Your task to perform on an android device: snooze an email in the gmail app Image 0: 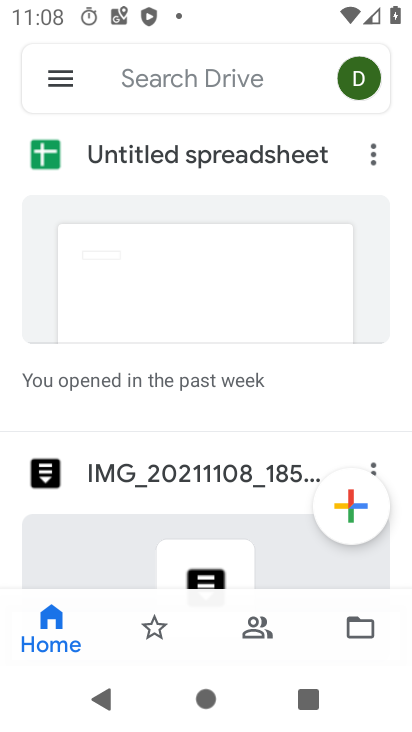
Step 0: press home button
Your task to perform on an android device: snooze an email in the gmail app Image 1: 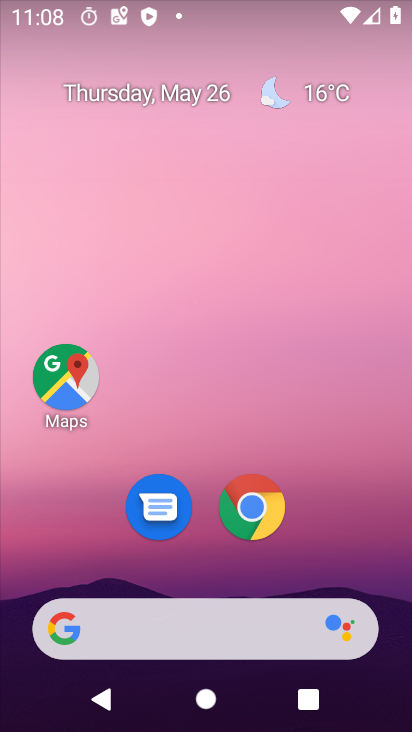
Step 1: drag from (205, 629) to (239, 305)
Your task to perform on an android device: snooze an email in the gmail app Image 2: 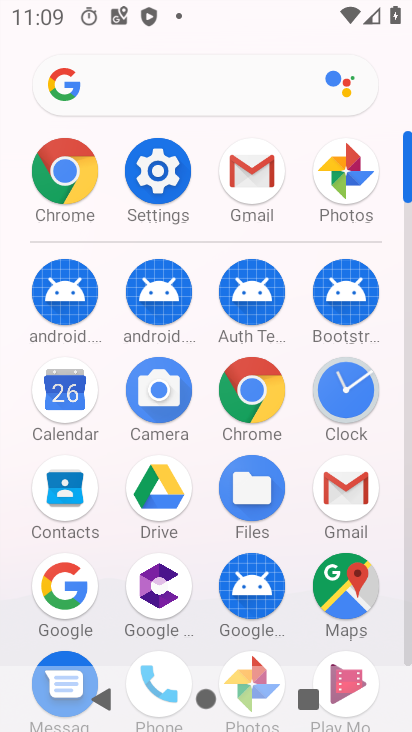
Step 2: click (252, 187)
Your task to perform on an android device: snooze an email in the gmail app Image 3: 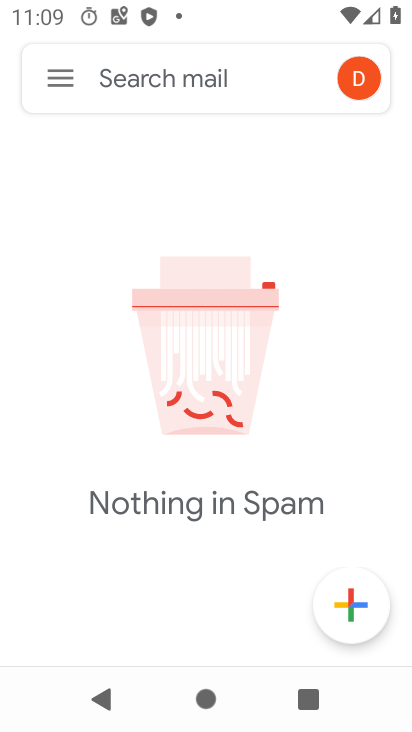
Step 3: click (47, 80)
Your task to perform on an android device: snooze an email in the gmail app Image 4: 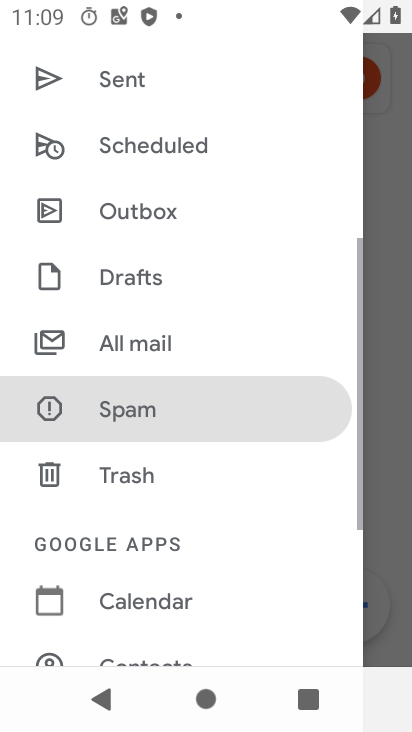
Step 4: drag from (161, 114) to (179, 593)
Your task to perform on an android device: snooze an email in the gmail app Image 5: 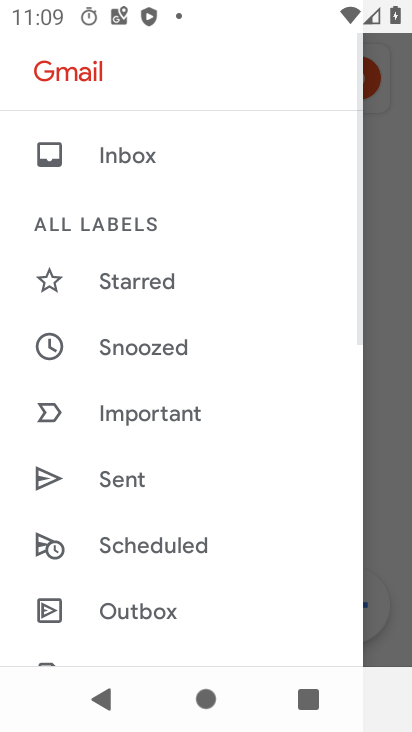
Step 5: click (128, 352)
Your task to perform on an android device: snooze an email in the gmail app Image 6: 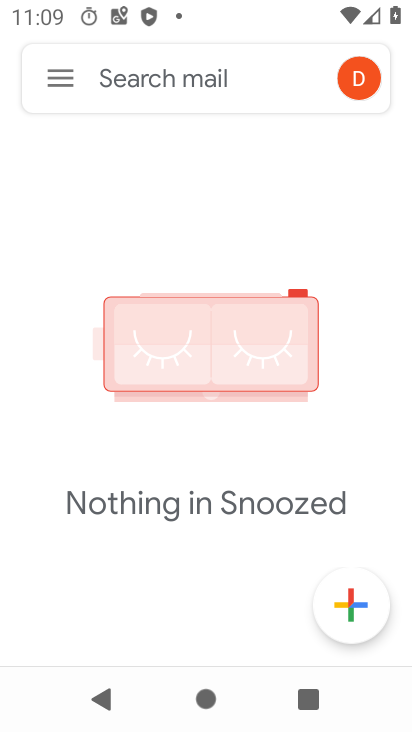
Step 6: click (71, 79)
Your task to perform on an android device: snooze an email in the gmail app Image 7: 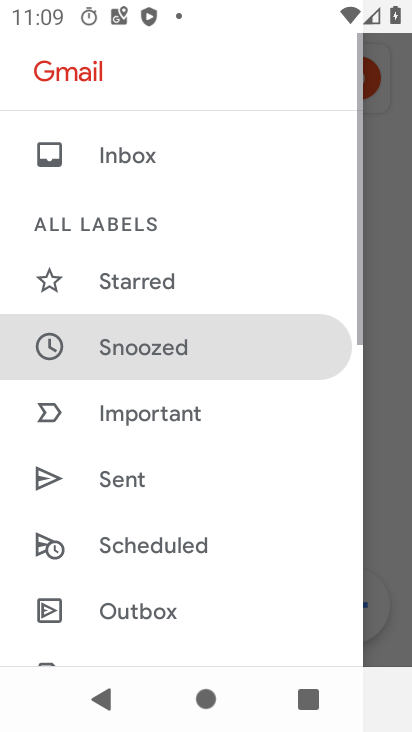
Step 7: click (161, 173)
Your task to perform on an android device: snooze an email in the gmail app Image 8: 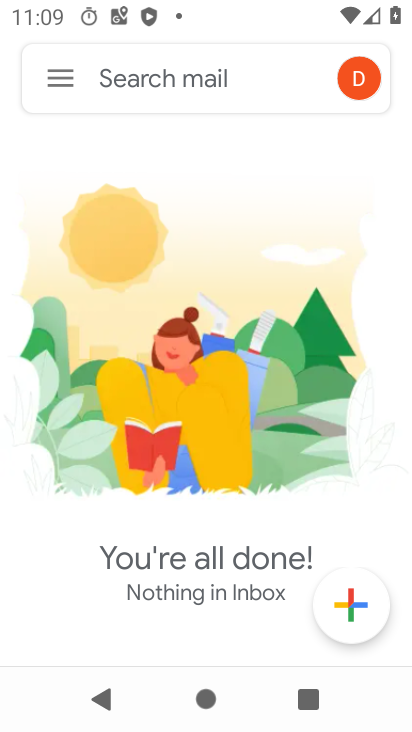
Step 8: task complete